Your task to perform on an android device: Open settings Image 0: 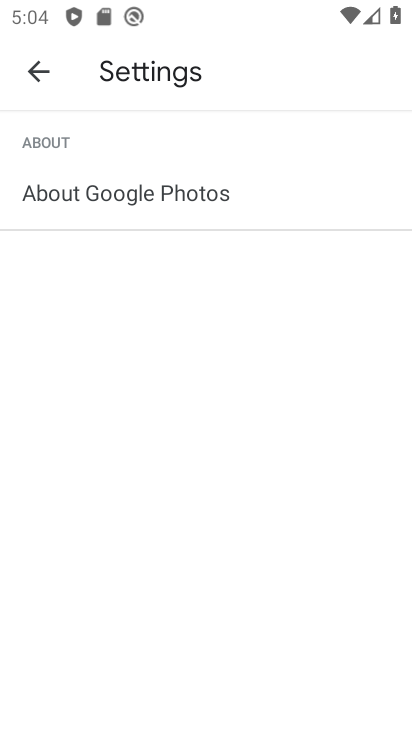
Step 0: press home button
Your task to perform on an android device: Open settings Image 1: 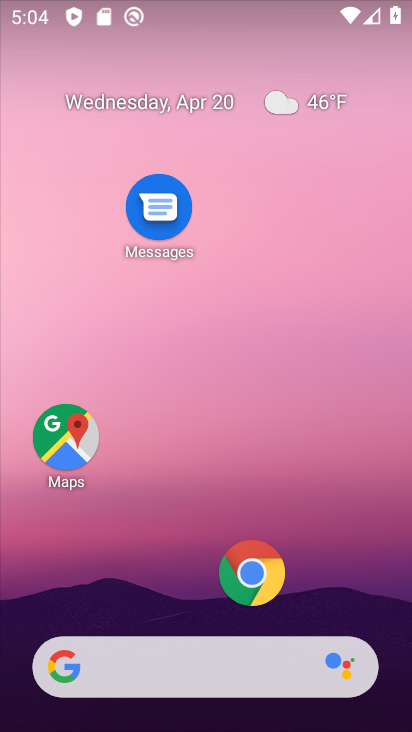
Step 1: drag from (173, 591) to (217, 103)
Your task to perform on an android device: Open settings Image 2: 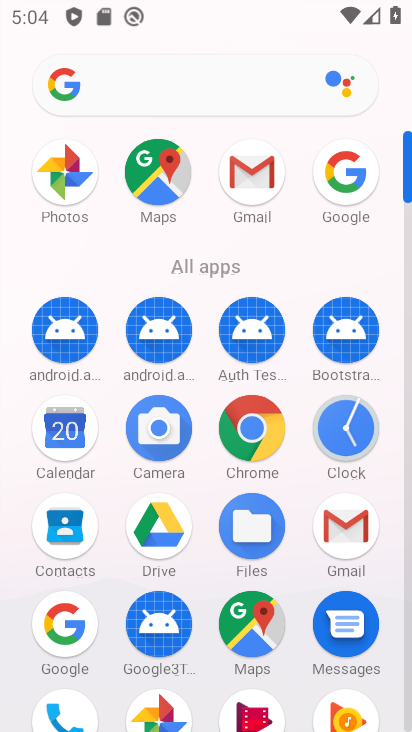
Step 2: drag from (109, 561) to (155, 186)
Your task to perform on an android device: Open settings Image 3: 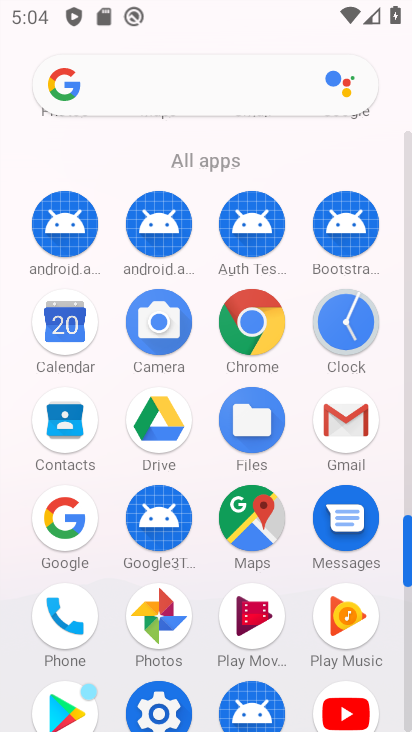
Step 3: click (157, 697)
Your task to perform on an android device: Open settings Image 4: 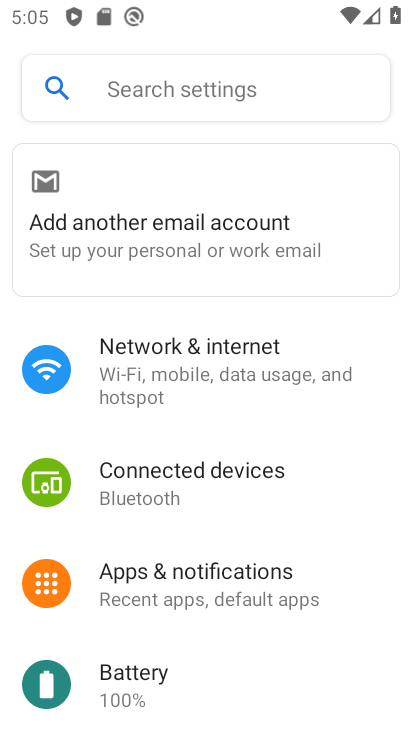
Step 4: task complete